Your task to perform on an android device: Go to Wikipedia Image 0: 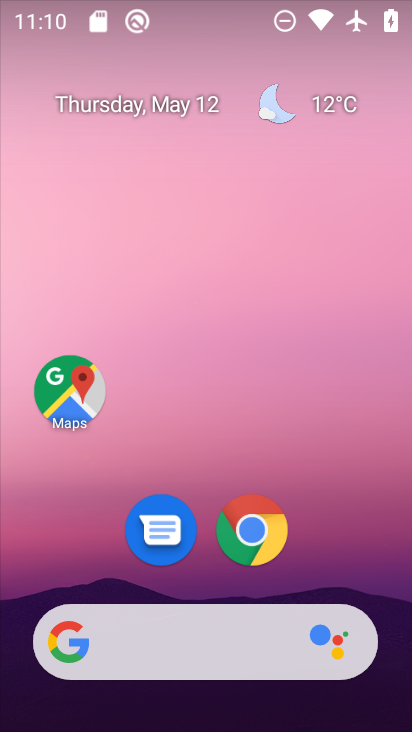
Step 0: click (252, 531)
Your task to perform on an android device: Go to Wikipedia Image 1: 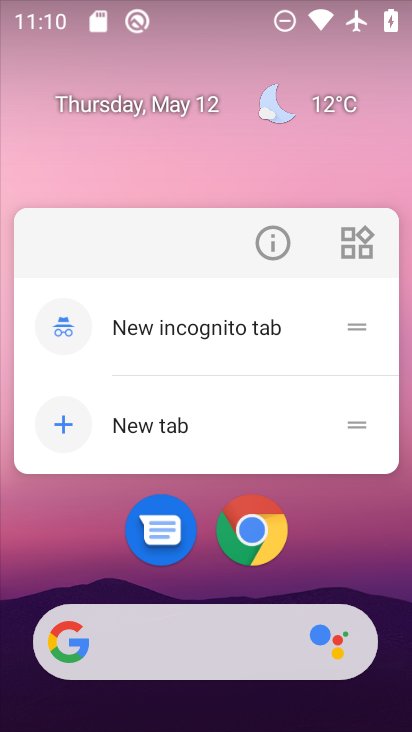
Step 1: click (256, 520)
Your task to perform on an android device: Go to Wikipedia Image 2: 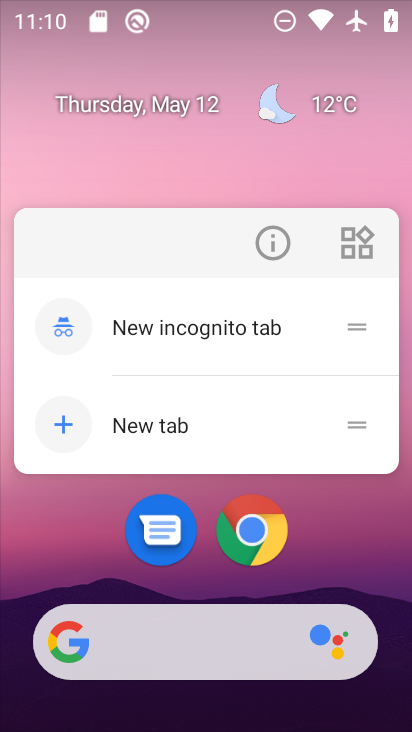
Step 2: click (248, 537)
Your task to perform on an android device: Go to Wikipedia Image 3: 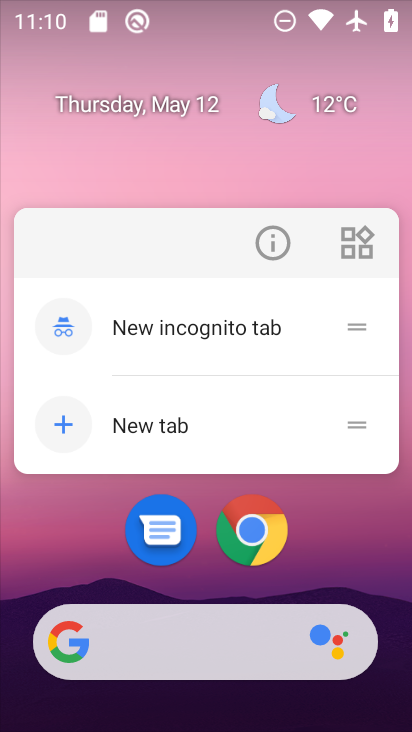
Step 3: click (247, 546)
Your task to perform on an android device: Go to Wikipedia Image 4: 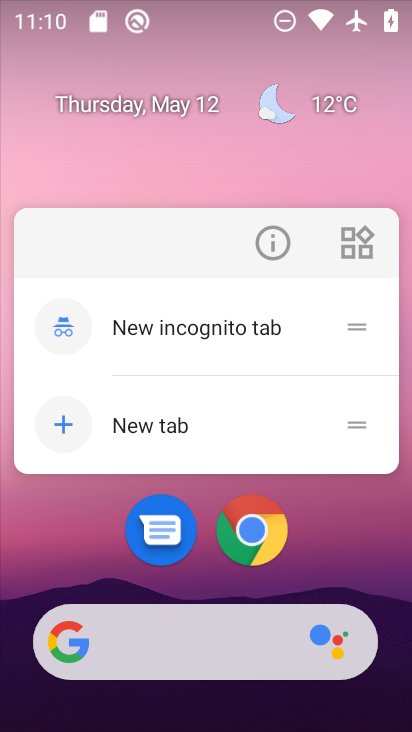
Step 4: click (241, 542)
Your task to perform on an android device: Go to Wikipedia Image 5: 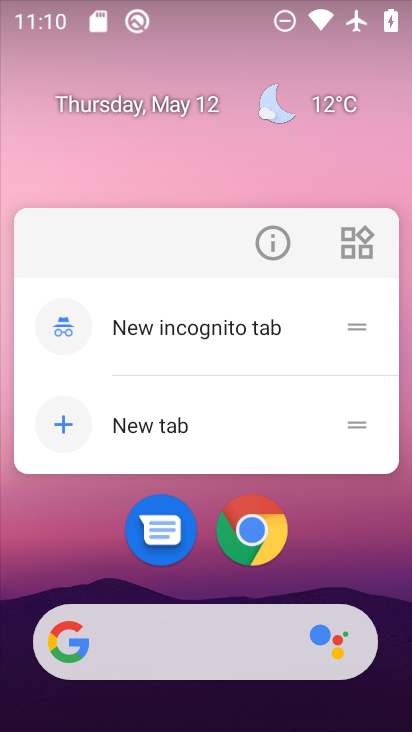
Step 5: click (262, 519)
Your task to perform on an android device: Go to Wikipedia Image 6: 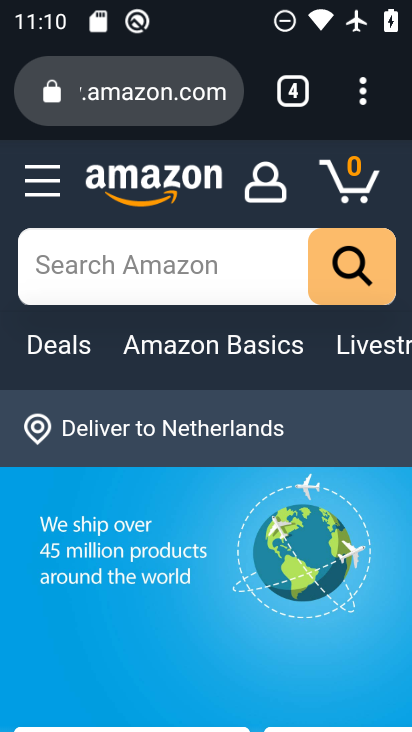
Step 6: drag from (367, 80) to (228, 178)
Your task to perform on an android device: Go to Wikipedia Image 7: 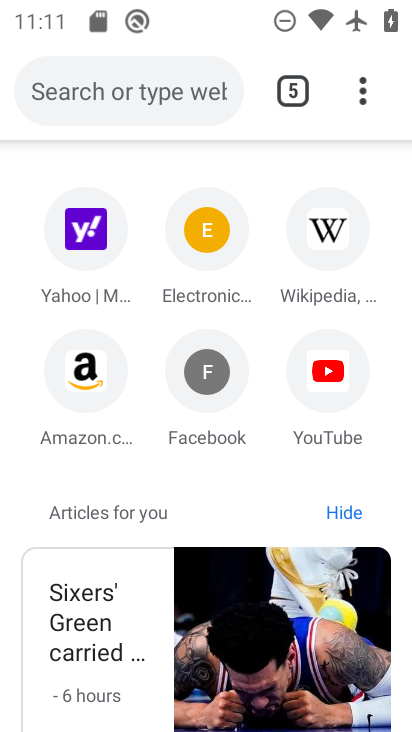
Step 7: click (327, 244)
Your task to perform on an android device: Go to Wikipedia Image 8: 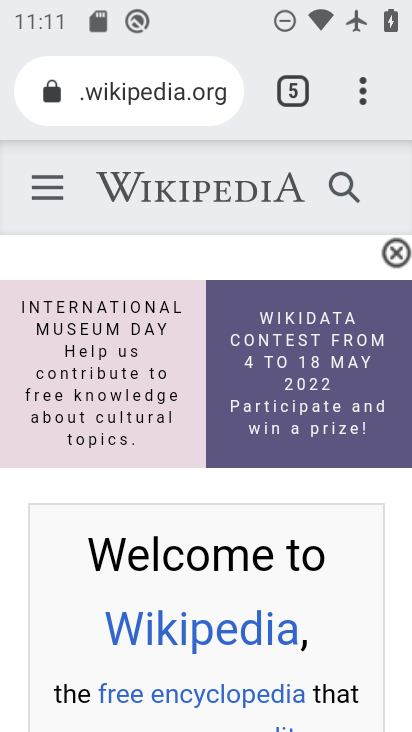
Step 8: task complete